Your task to perform on an android device: What's on my calendar tomorrow? Image 0: 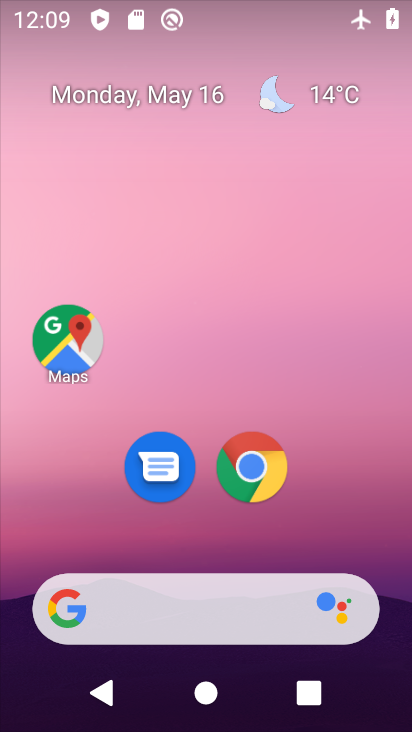
Step 0: click (247, 452)
Your task to perform on an android device: What's on my calendar tomorrow? Image 1: 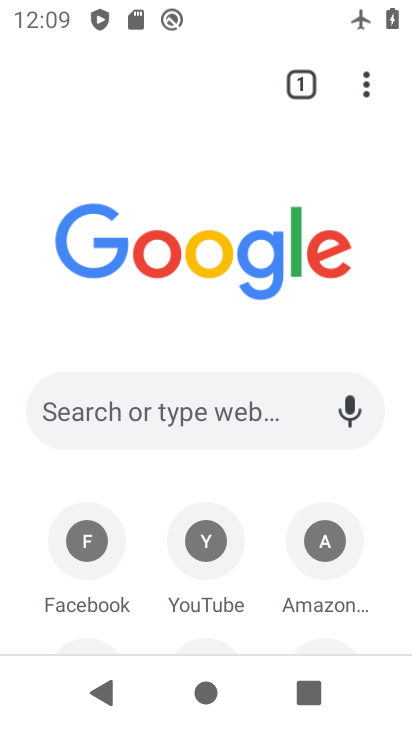
Step 1: press home button
Your task to perform on an android device: What's on my calendar tomorrow? Image 2: 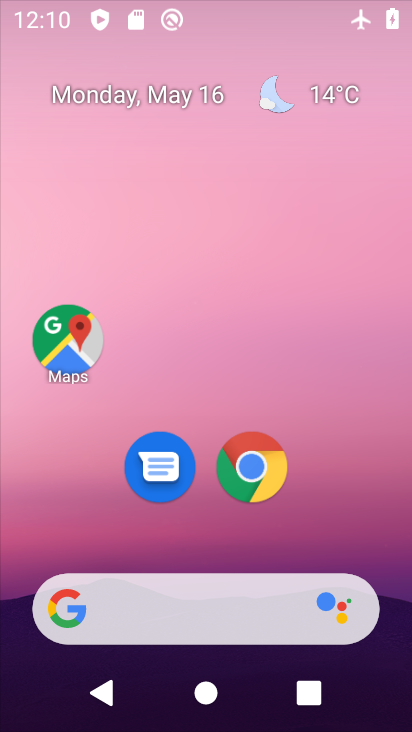
Step 2: drag from (300, 421) to (326, 148)
Your task to perform on an android device: What's on my calendar tomorrow? Image 3: 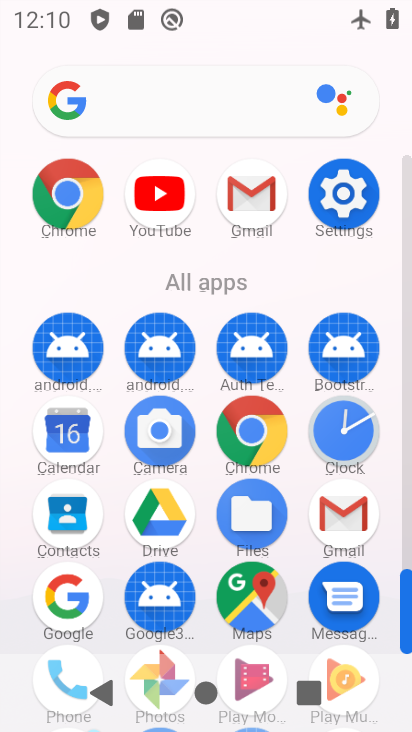
Step 3: drag from (215, 513) to (241, 279)
Your task to perform on an android device: What's on my calendar tomorrow? Image 4: 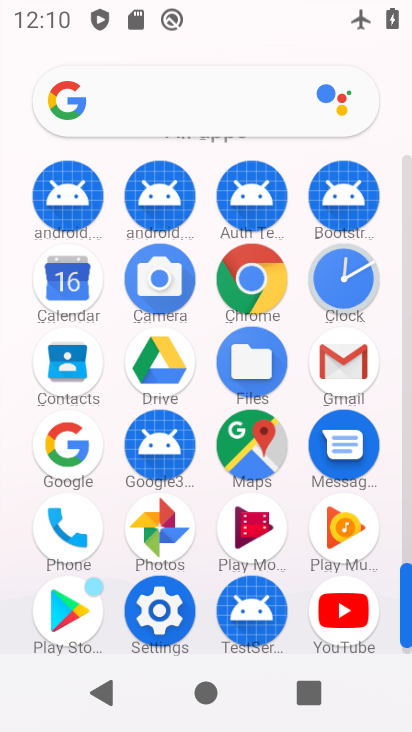
Step 4: click (56, 280)
Your task to perform on an android device: What's on my calendar tomorrow? Image 5: 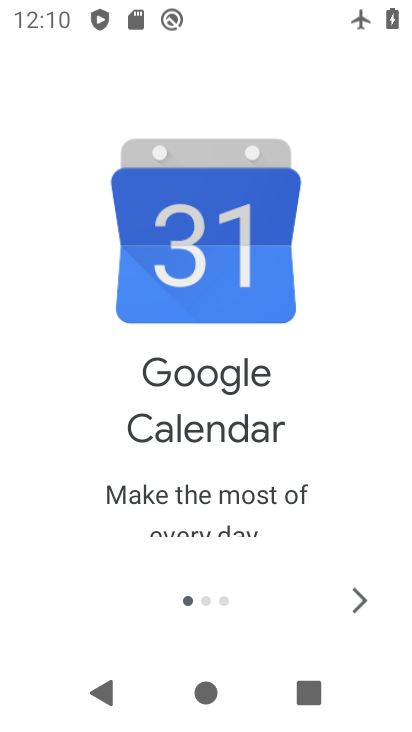
Step 5: click (344, 599)
Your task to perform on an android device: What's on my calendar tomorrow? Image 6: 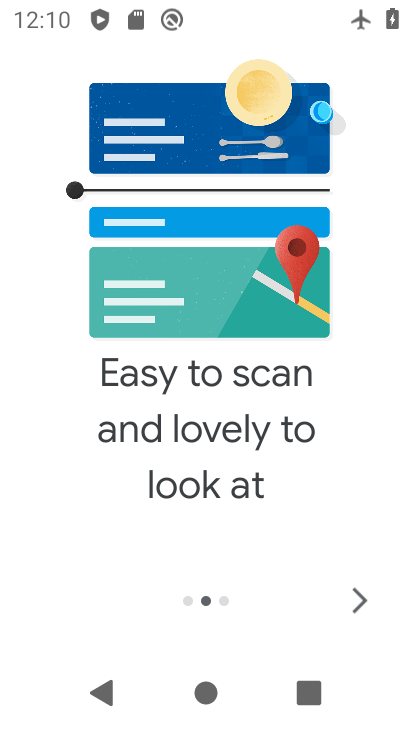
Step 6: click (344, 599)
Your task to perform on an android device: What's on my calendar tomorrow? Image 7: 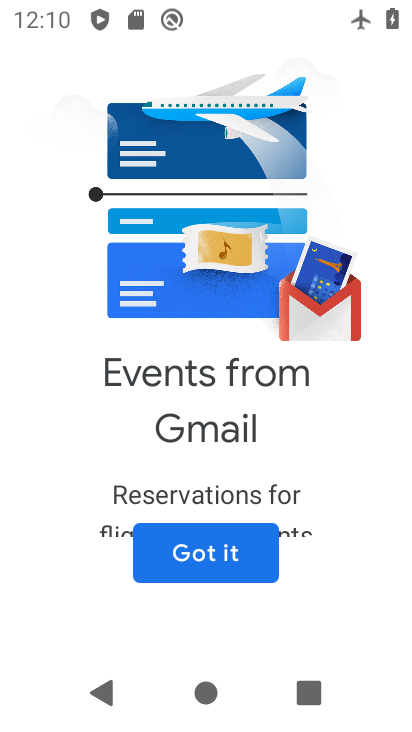
Step 7: click (344, 599)
Your task to perform on an android device: What's on my calendar tomorrow? Image 8: 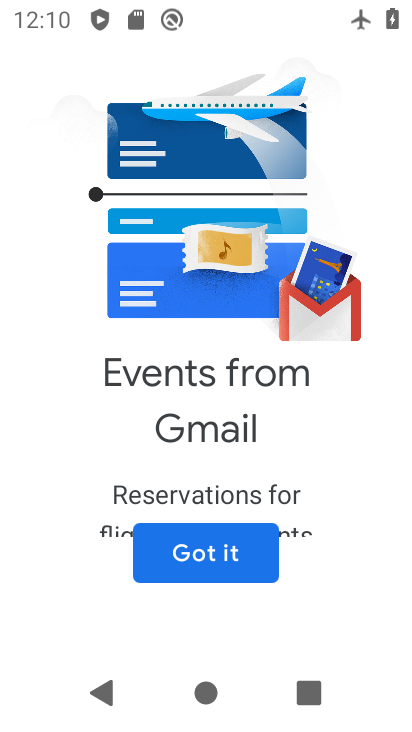
Step 8: click (255, 562)
Your task to perform on an android device: What's on my calendar tomorrow? Image 9: 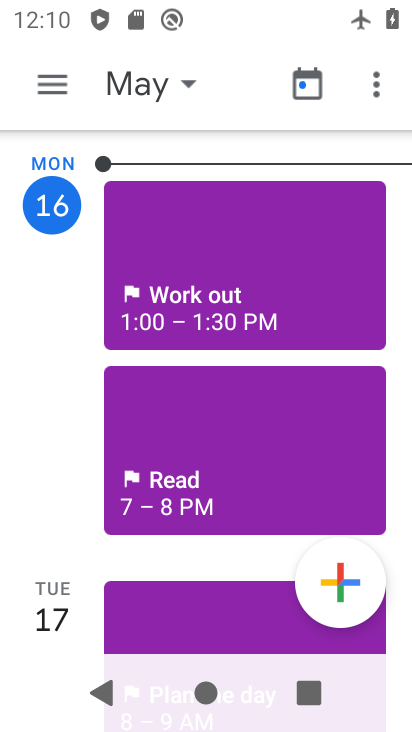
Step 9: task complete